Your task to perform on an android device: see creations saved in the google photos Image 0: 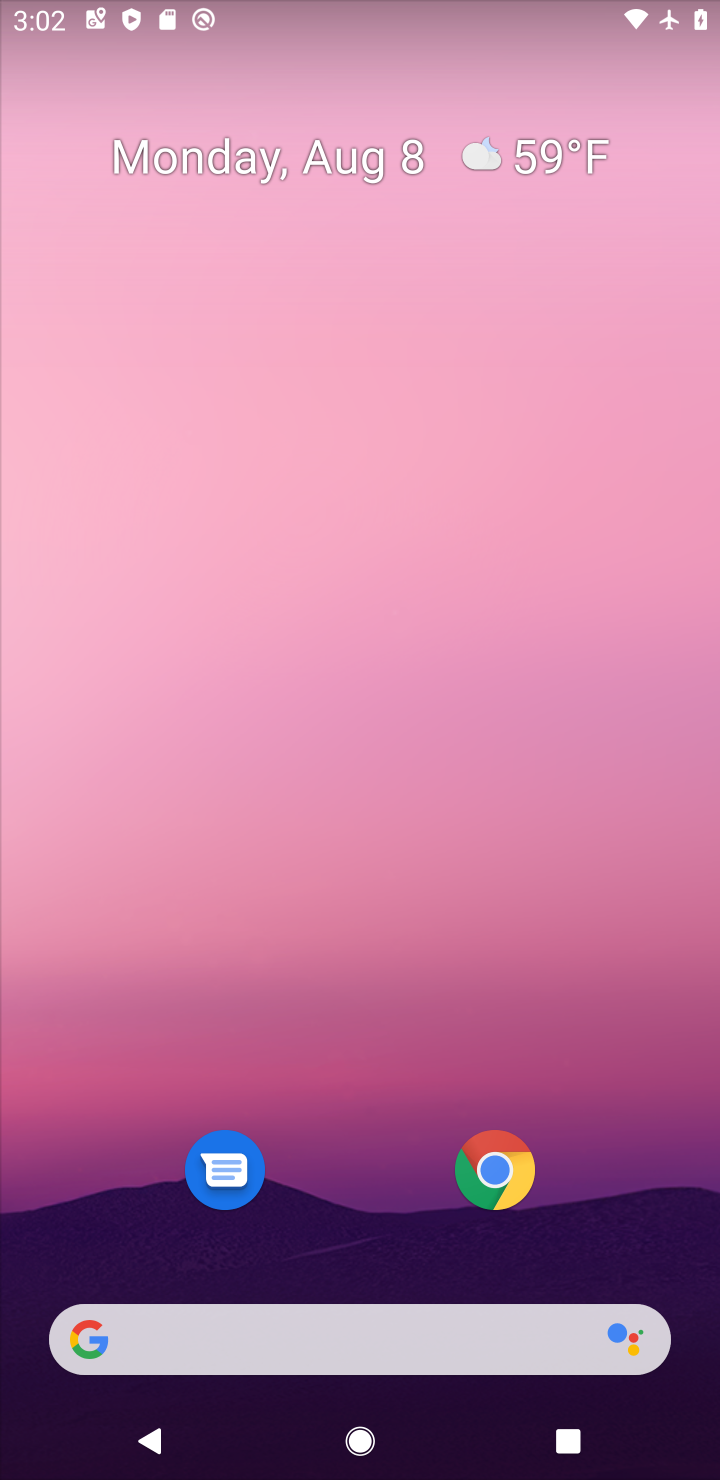
Step 0: drag from (361, 1167) to (375, 323)
Your task to perform on an android device: see creations saved in the google photos Image 1: 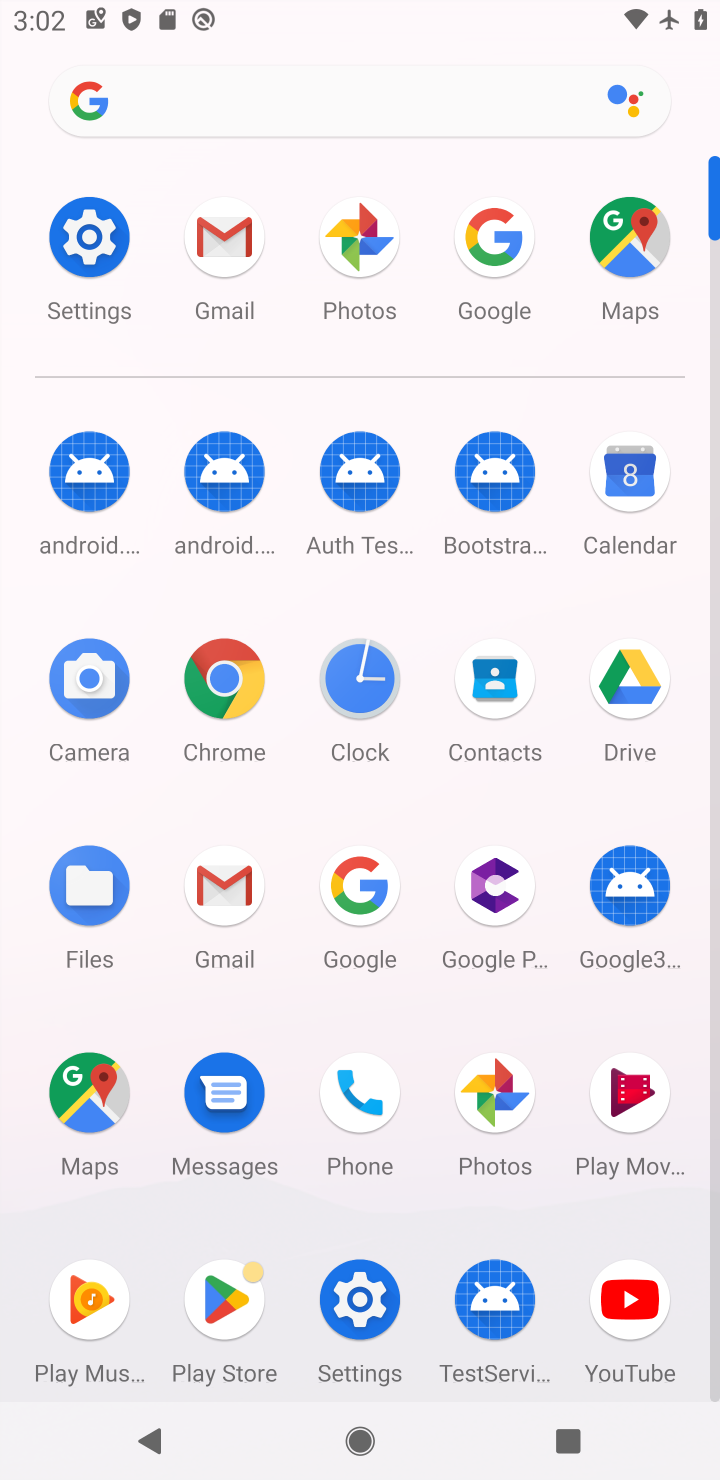
Step 1: click (475, 1108)
Your task to perform on an android device: see creations saved in the google photos Image 2: 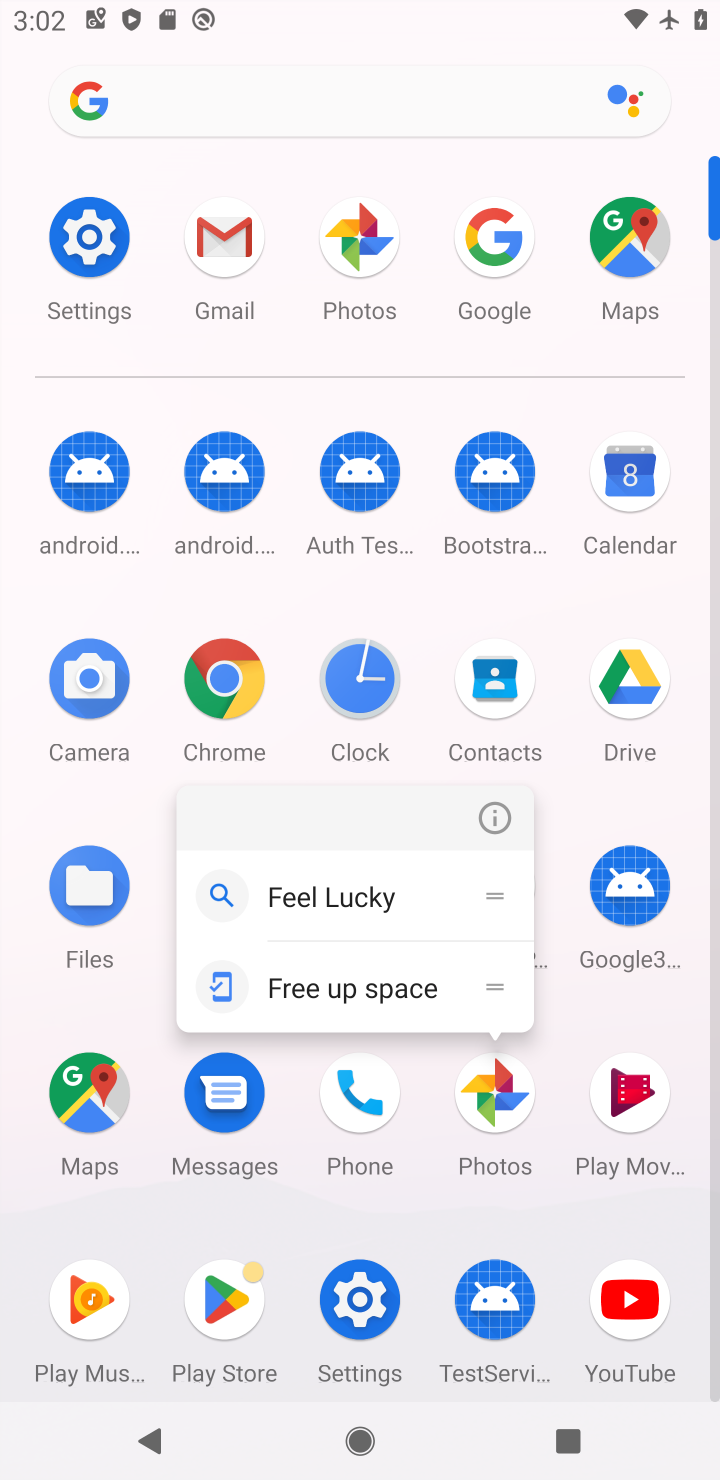
Step 2: click (505, 1117)
Your task to perform on an android device: see creations saved in the google photos Image 3: 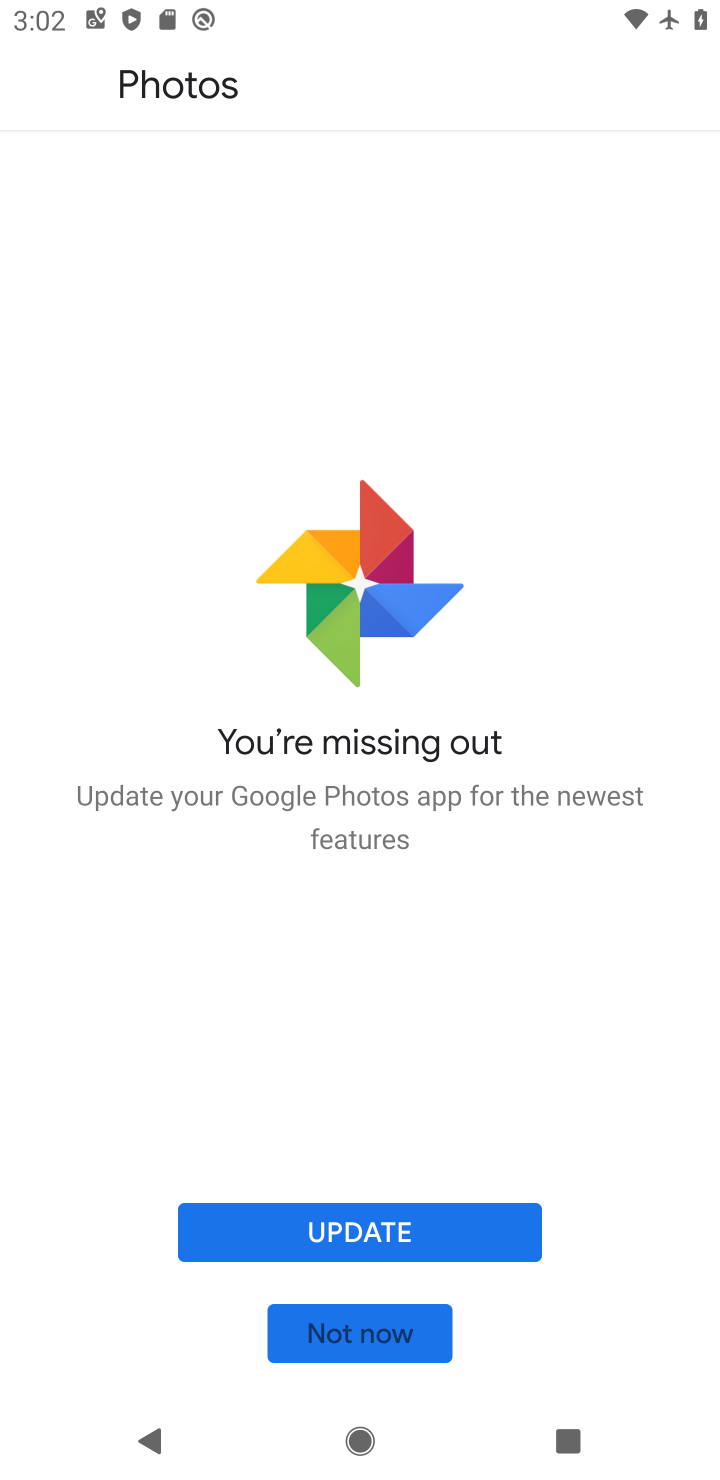
Step 3: click (311, 1313)
Your task to perform on an android device: see creations saved in the google photos Image 4: 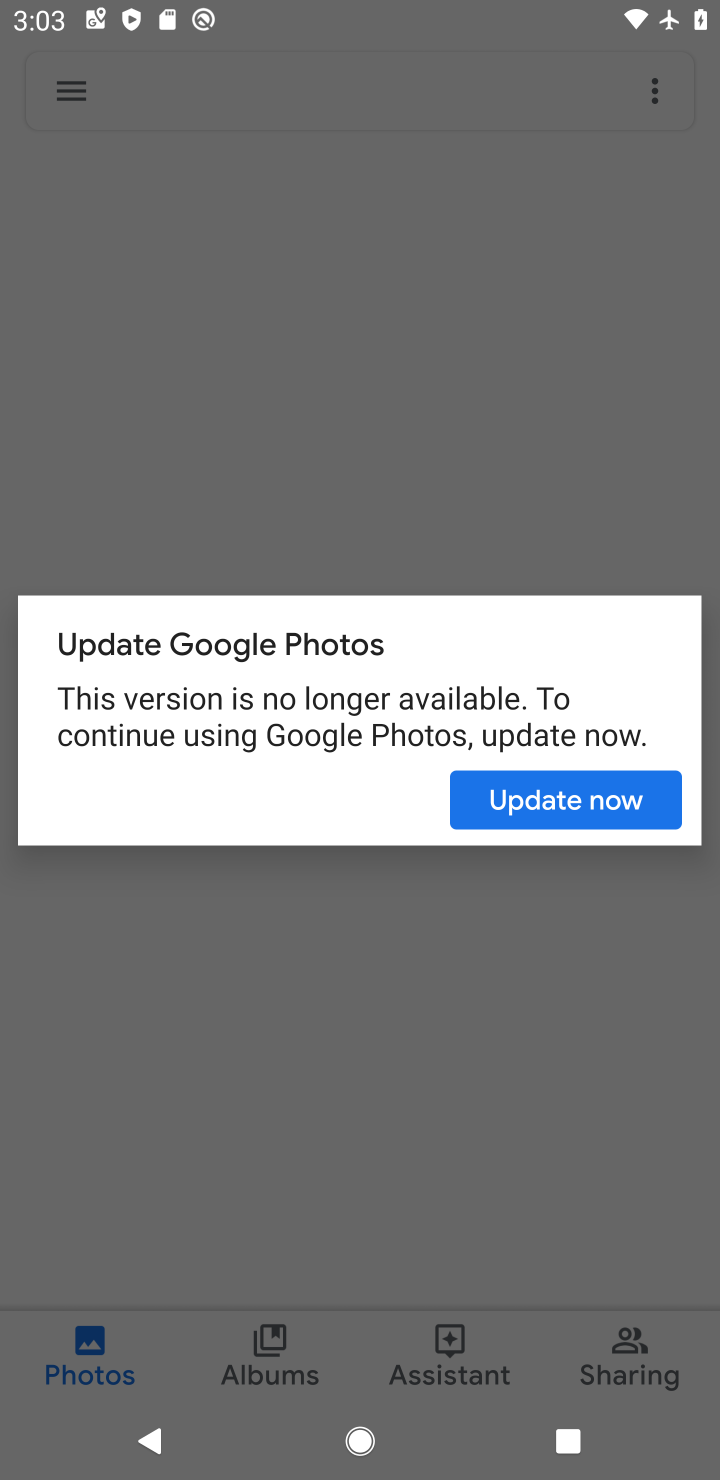
Step 4: click (588, 808)
Your task to perform on an android device: see creations saved in the google photos Image 5: 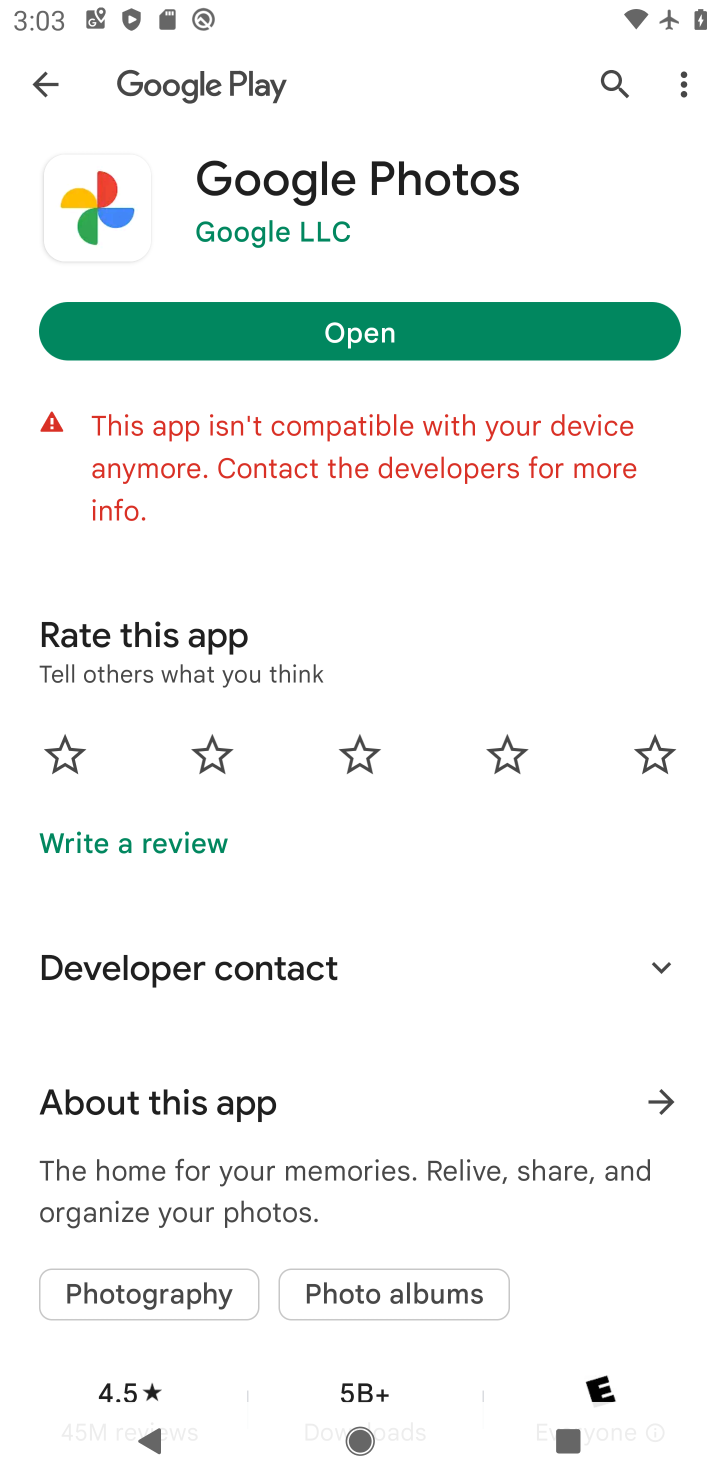
Step 5: click (316, 346)
Your task to perform on an android device: see creations saved in the google photos Image 6: 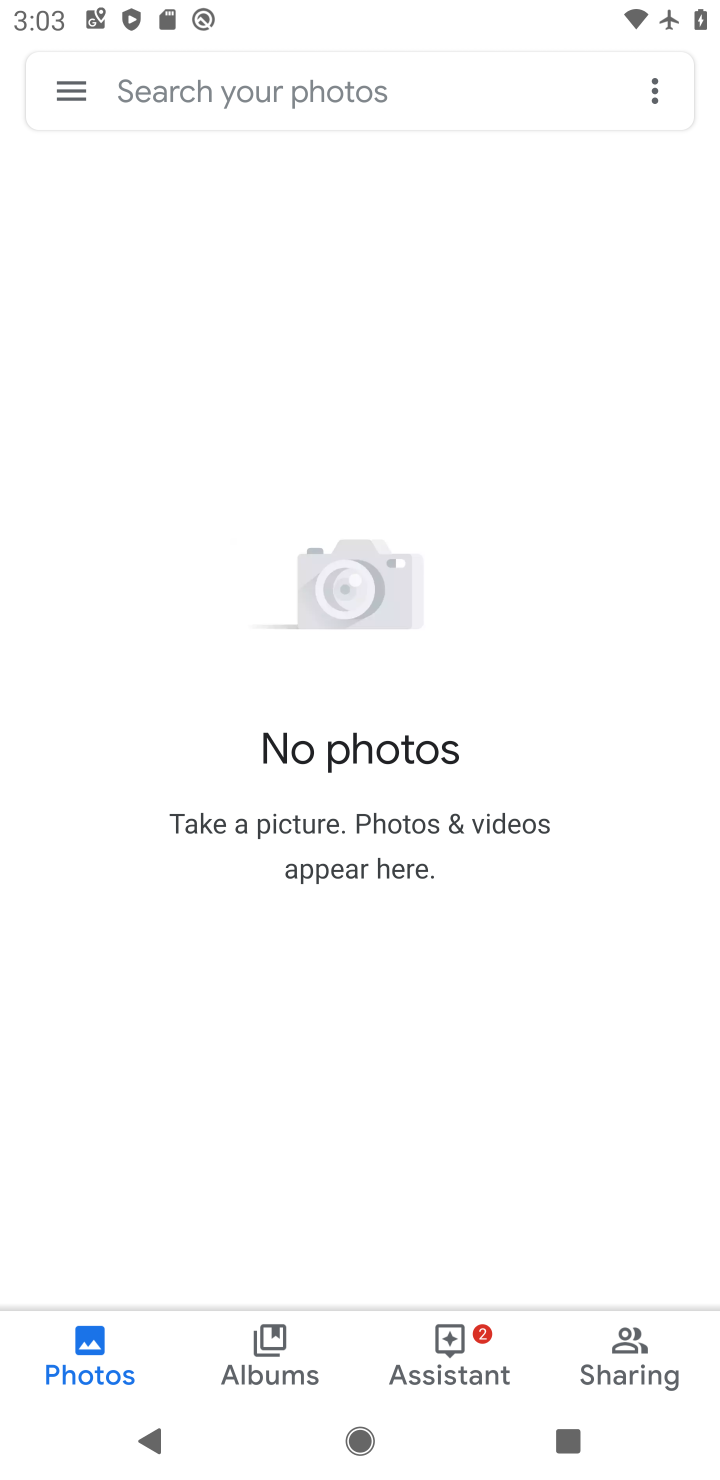
Step 6: click (197, 102)
Your task to perform on an android device: see creations saved in the google photos Image 7: 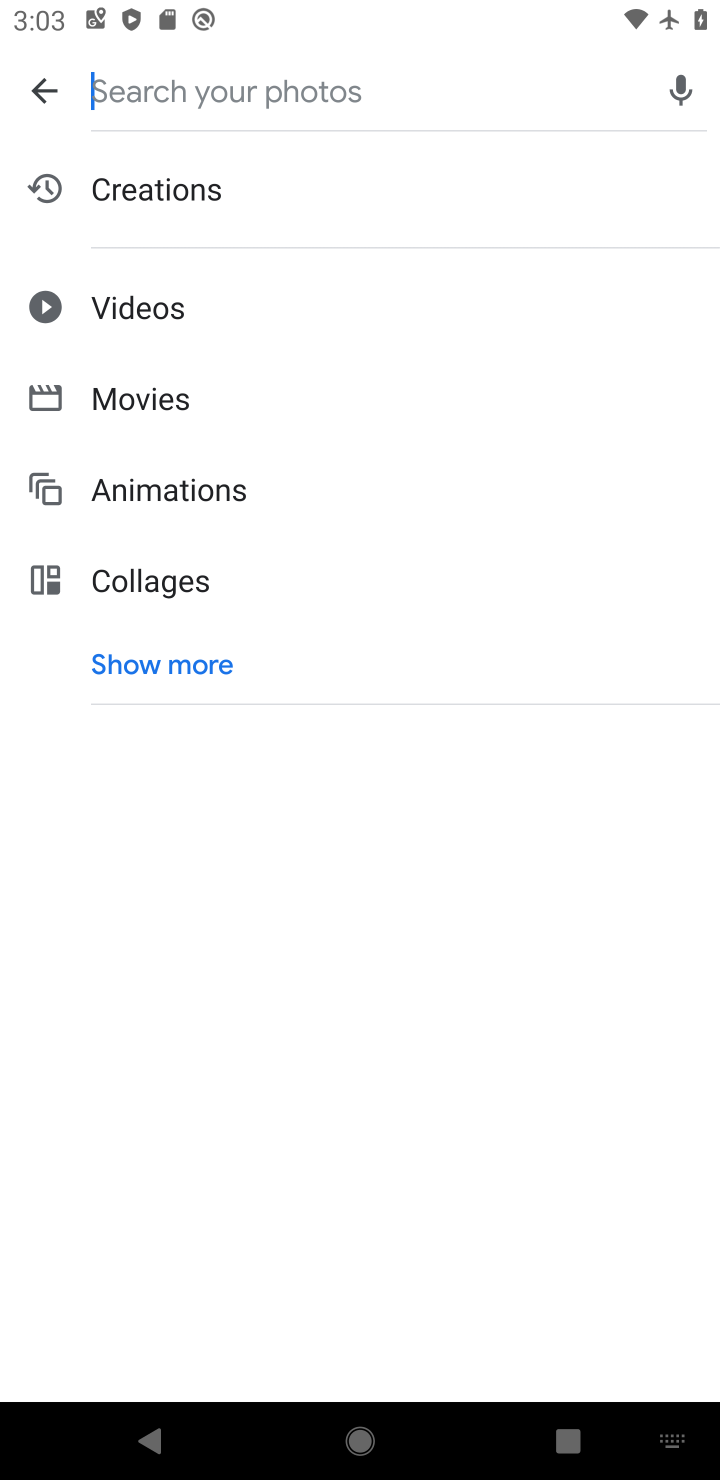
Step 7: click (155, 189)
Your task to perform on an android device: see creations saved in the google photos Image 8: 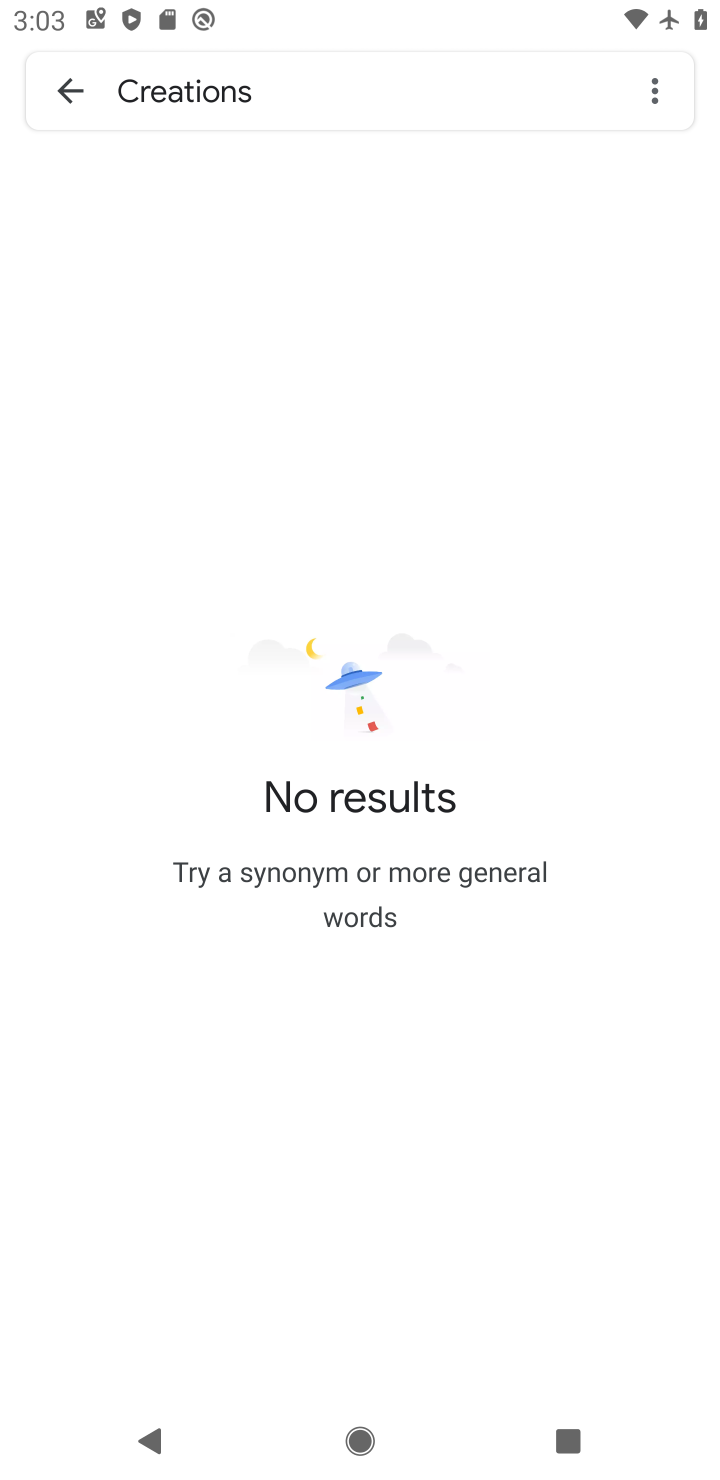
Step 8: task complete